Your task to perform on an android device: install app "Roku - Official Remote Control" Image 0: 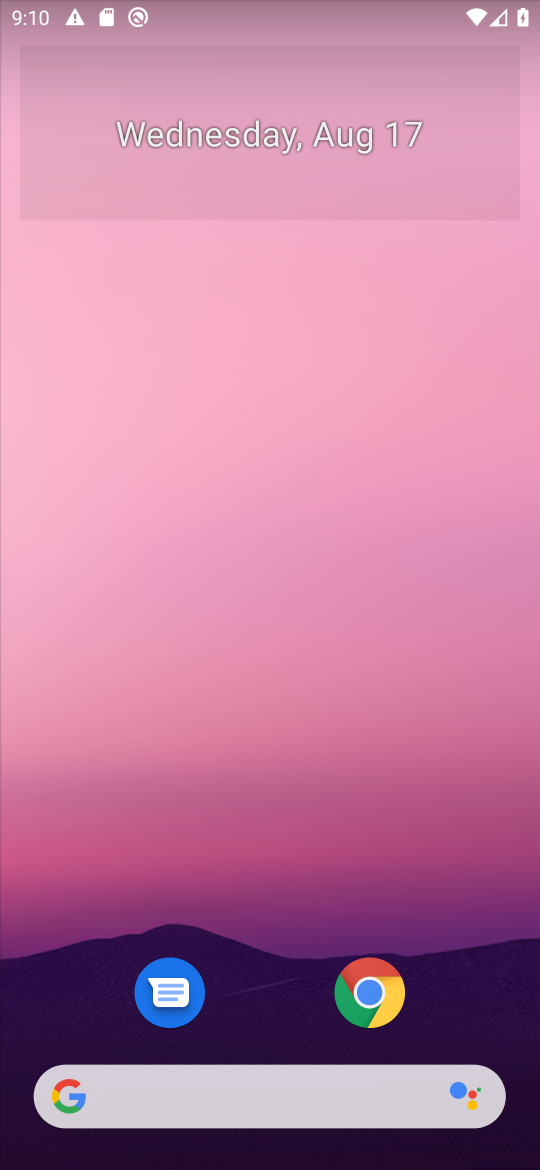
Step 0: drag from (255, 1102) to (249, 177)
Your task to perform on an android device: install app "Roku - Official Remote Control" Image 1: 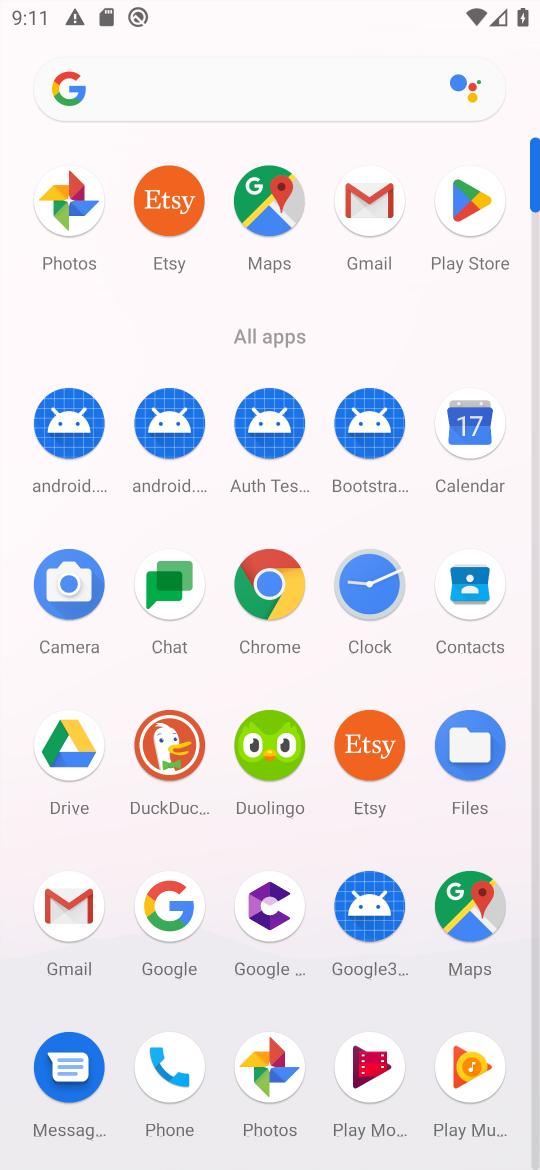
Step 1: click (473, 204)
Your task to perform on an android device: install app "Roku - Official Remote Control" Image 2: 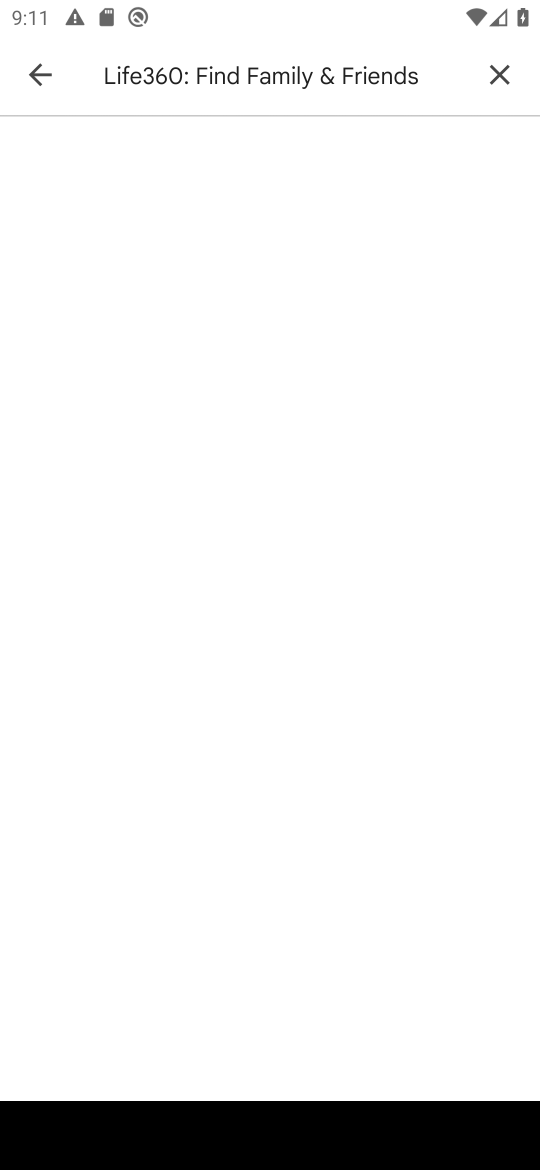
Step 2: press back button
Your task to perform on an android device: install app "Roku - Official Remote Control" Image 3: 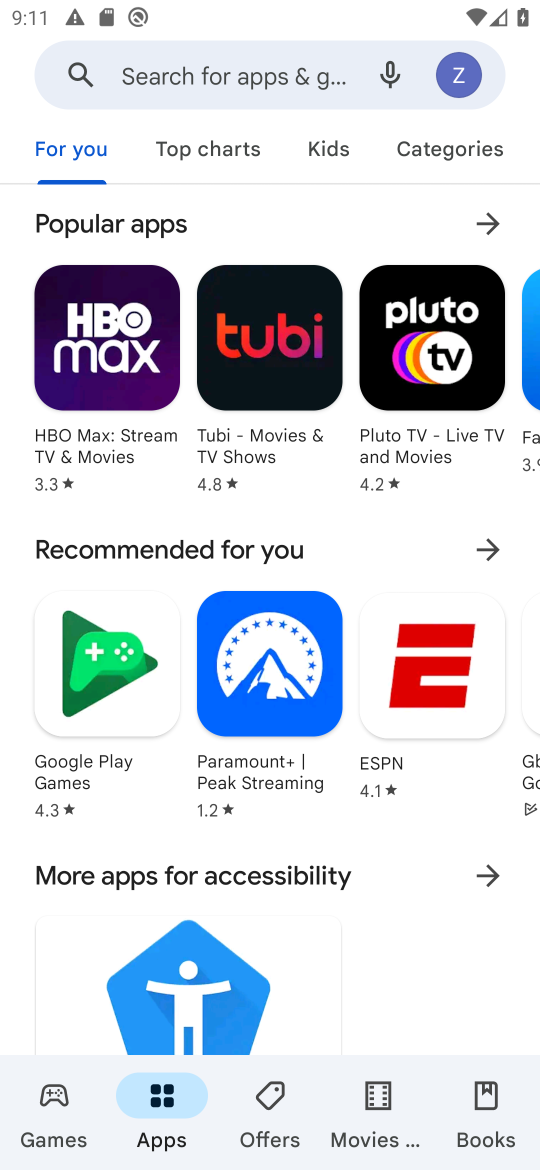
Step 3: click (224, 67)
Your task to perform on an android device: install app "Roku - Official Remote Control" Image 4: 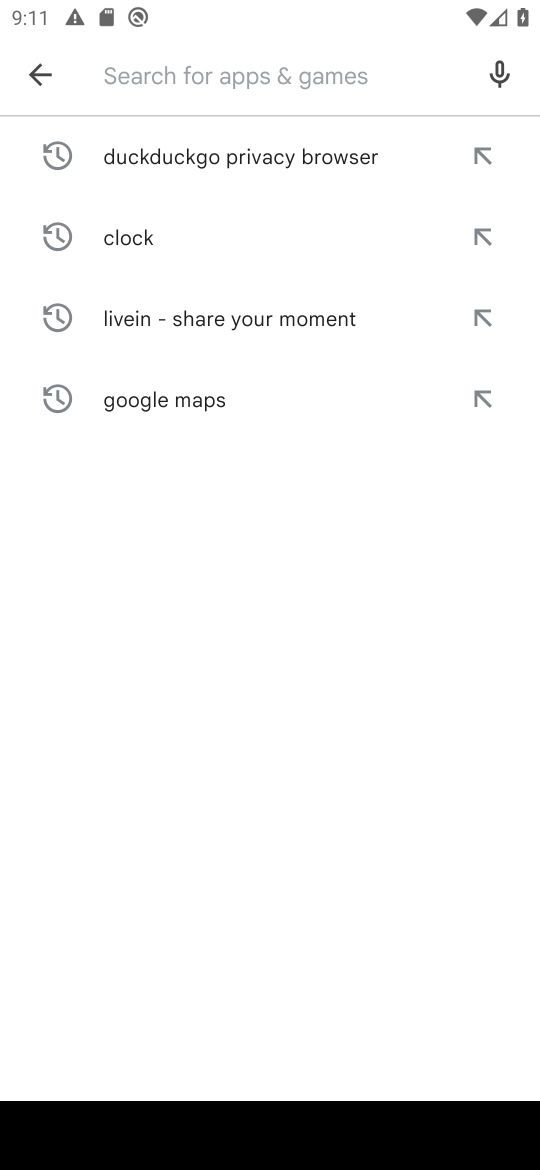
Step 4: type "Roku - Official Remote Control"
Your task to perform on an android device: install app "Roku - Official Remote Control" Image 5: 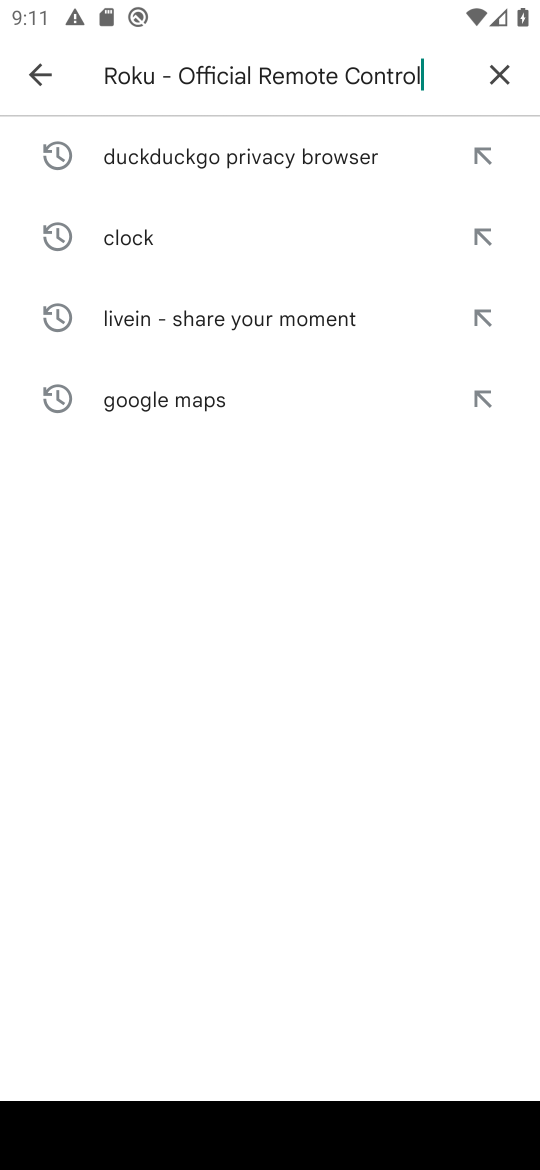
Step 5: type ""
Your task to perform on an android device: install app "Roku - Official Remote Control" Image 6: 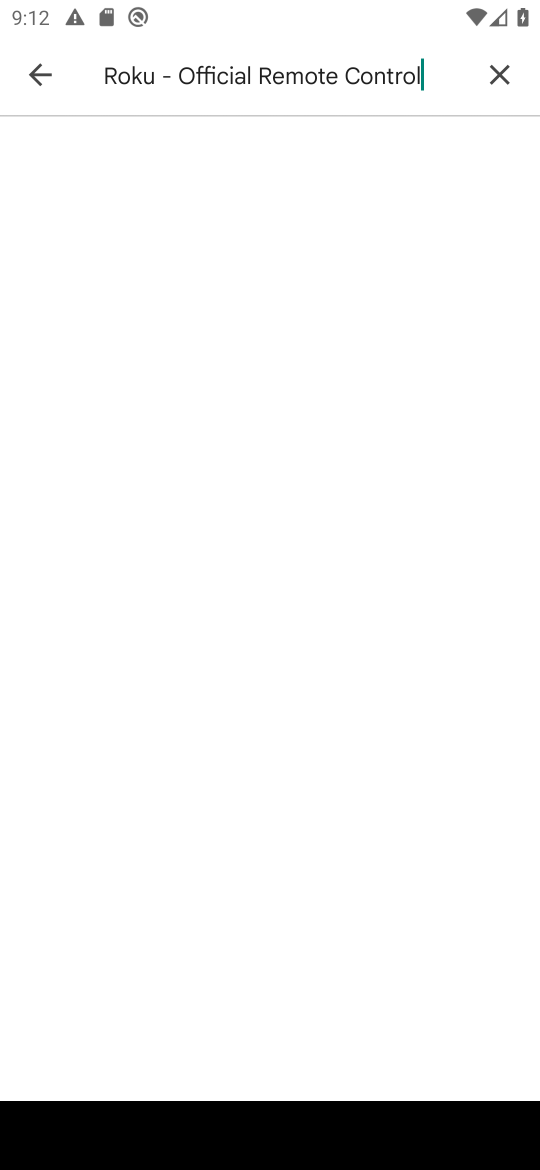
Step 6: task complete